Your task to perform on an android device: Show the shopping cart on bestbuy. Image 0: 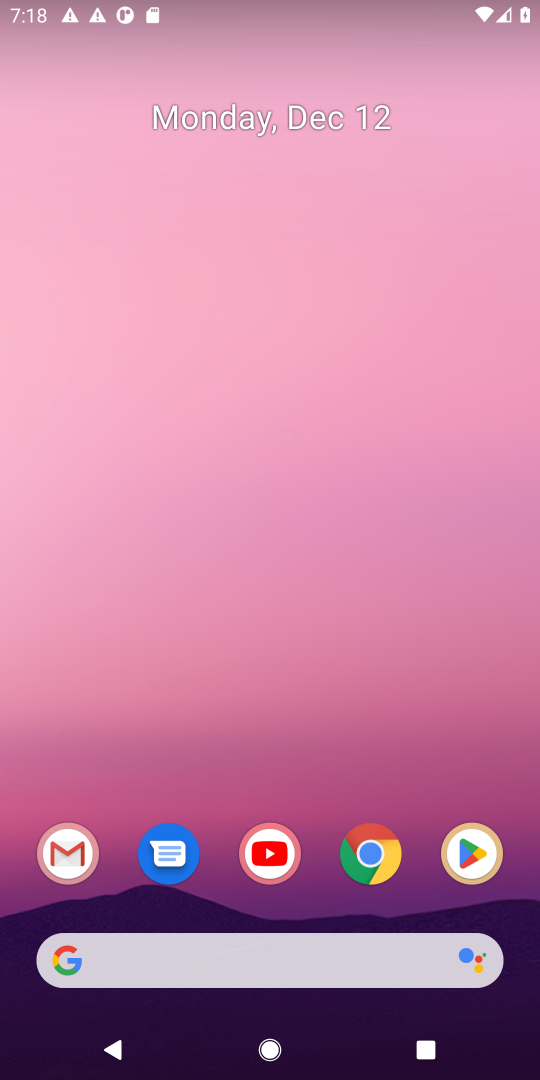
Step 0: click (377, 854)
Your task to perform on an android device: Show the shopping cart on bestbuy. Image 1: 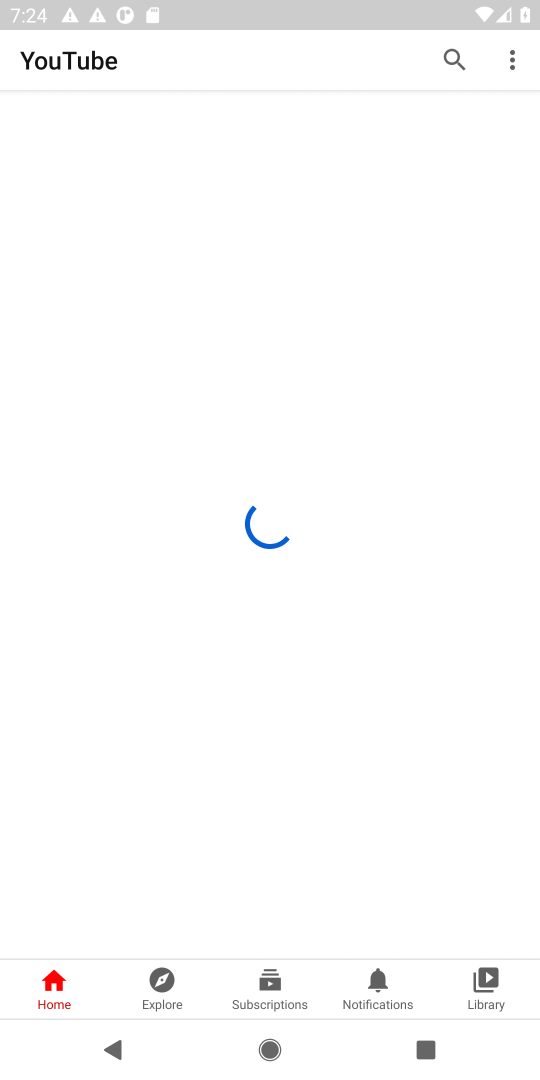
Step 1: press home button
Your task to perform on an android device: Show the shopping cart on bestbuy. Image 2: 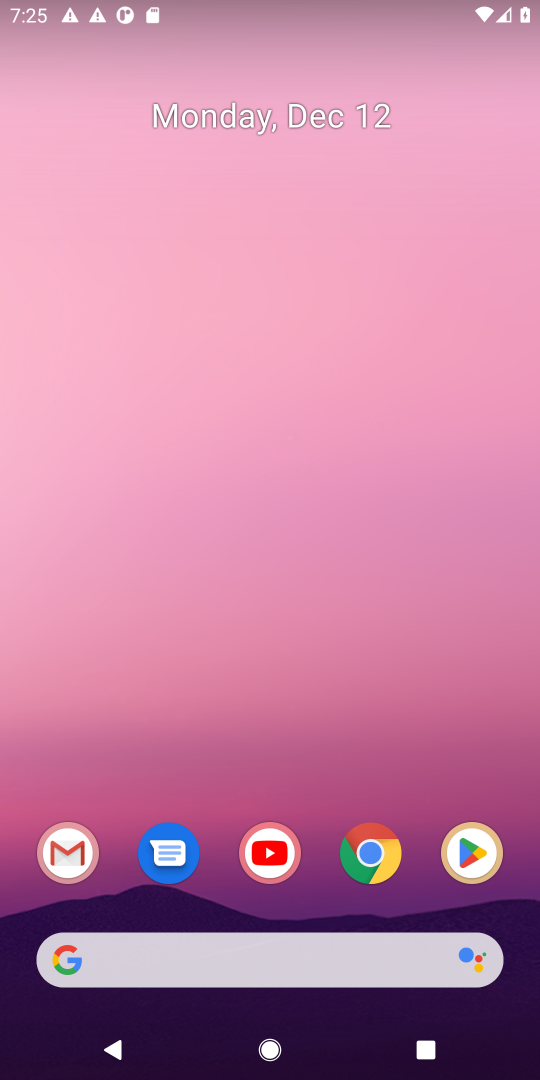
Step 2: click (357, 849)
Your task to perform on an android device: Show the shopping cart on bestbuy. Image 3: 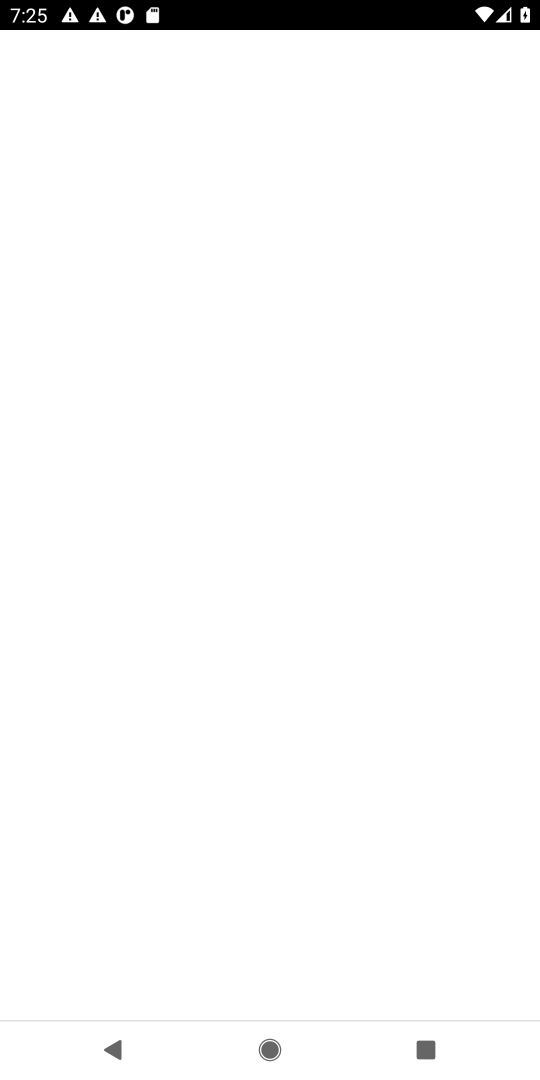
Step 3: task complete